Your task to perform on an android device: turn on location history Image 0: 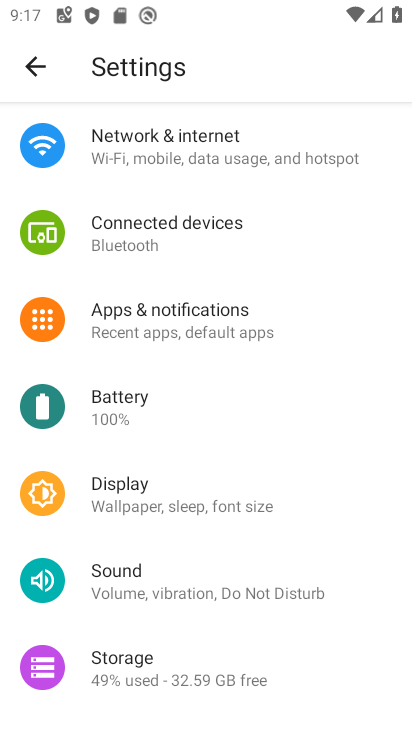
Step 0: press home button
Your task to perform on an android device: turn on location history Image 1: 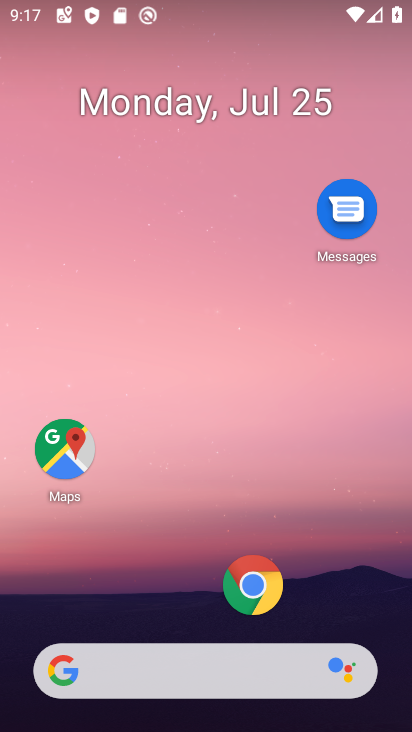
Step 1: click (68, 449)
Your task to perform on an android device: turn on location history Image 2: 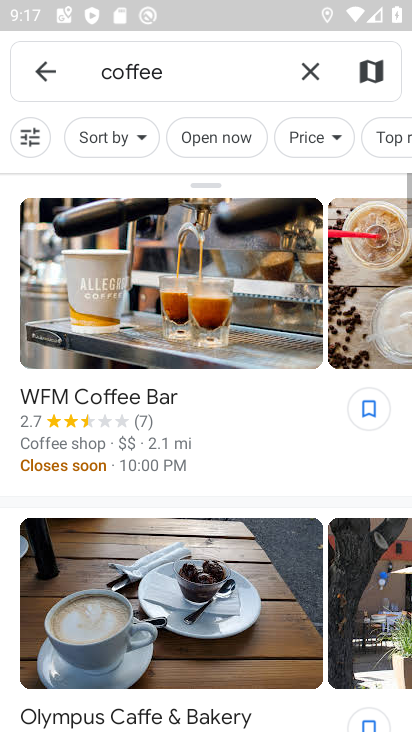
Step 2: click (55, 75)
Your task to perform on an android device: turn on location history Image 3: 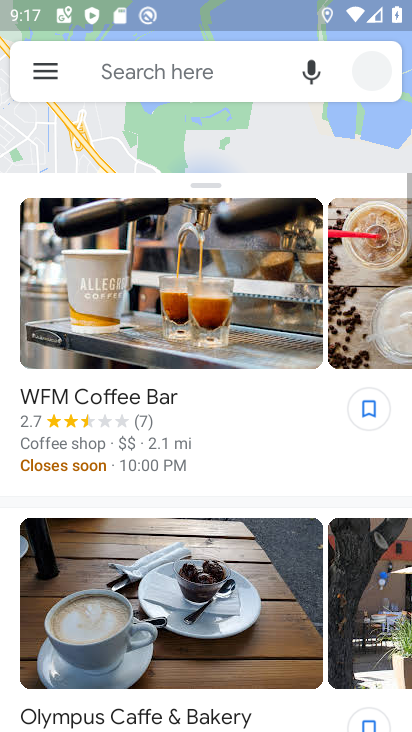
Step 3: click (48, 71)
Your task to perform on an android device: turn on location history Image 4: 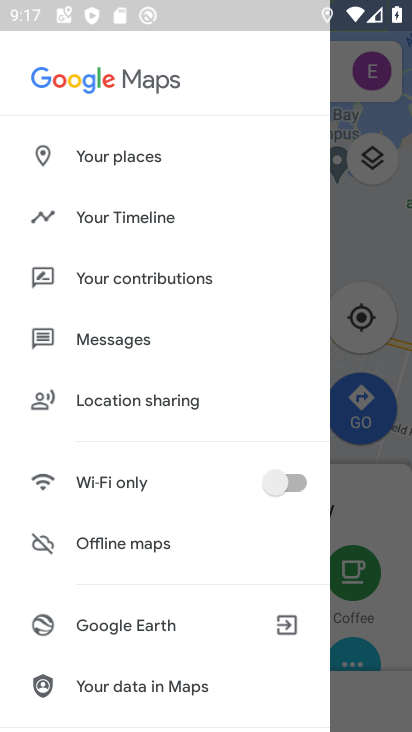
Step 4: click (118, 213)
Your task to perform on an android device: turn on location history Image 5: 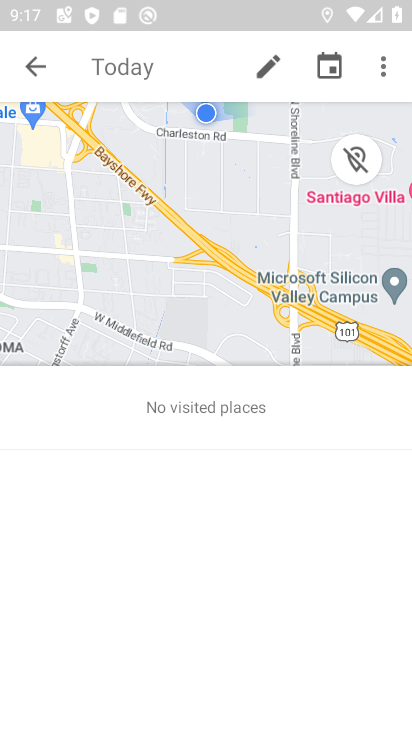
Step 5: click (384, 72)
Your task to perform on an android device: turn on location history Image 6: 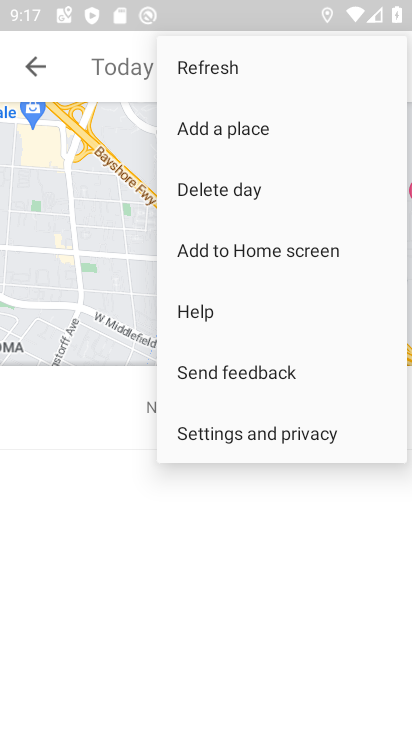
Step 6: click (233, 429)
Your task to perform on an android device: turn on location history Image 7: 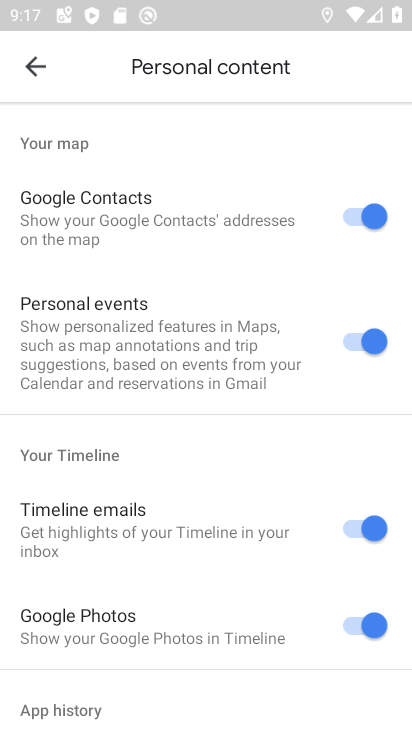
Step 7: drag from (147, 588) to (319, 96)
Your task to perform on an android device: turn on location history Image 8: 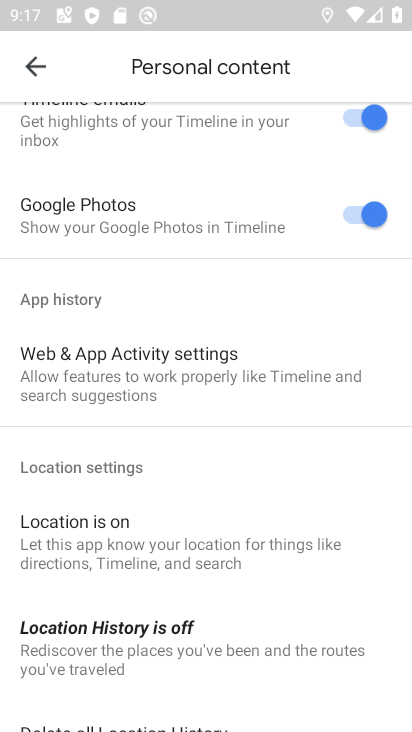
Step 8: click (120, 631)
Your task to perform on an android device: turn on location history Image 9: 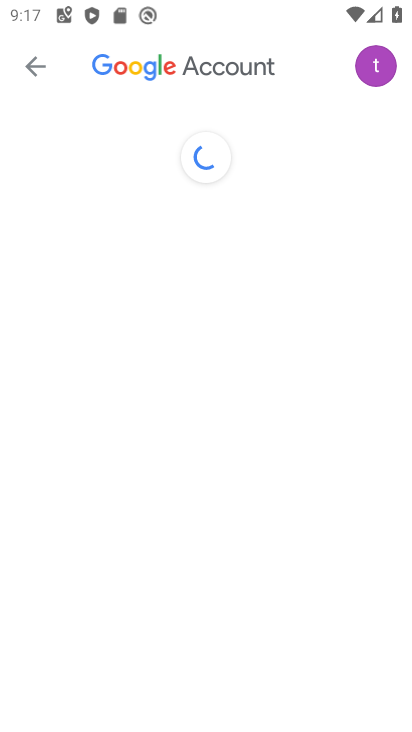
Step 9: drag from (293, 593) to (306, 119)
Your task to perform on an android device: turn on location history Image 10: 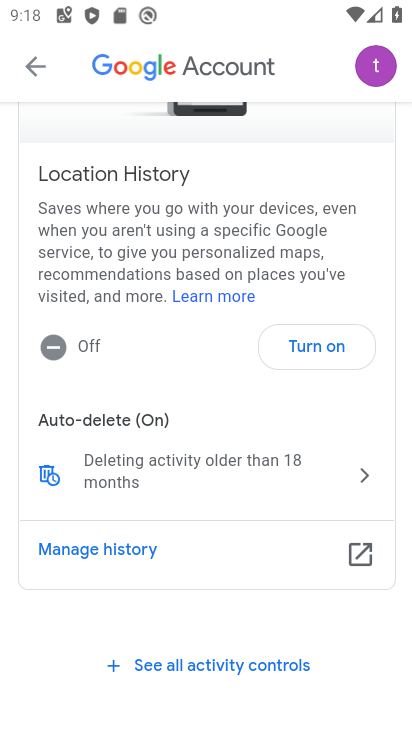
Step 10: click (324, 341)
Your task to perform on an android device: turn on location history Image 11: 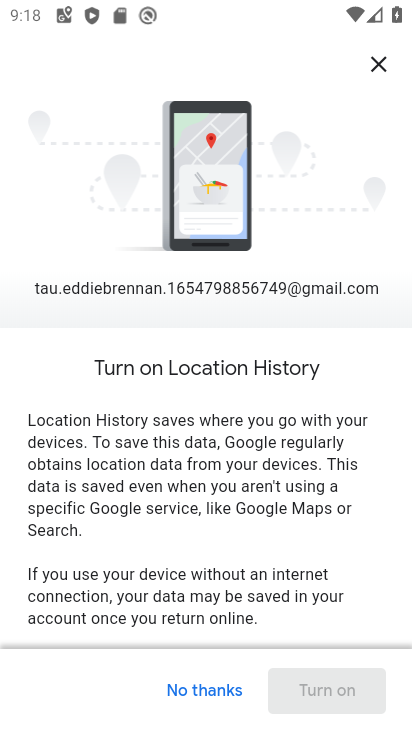
Step 11: drag from (229, 551) to (293, 68)
Your task to perform on an android device: turn on location history Image 12: 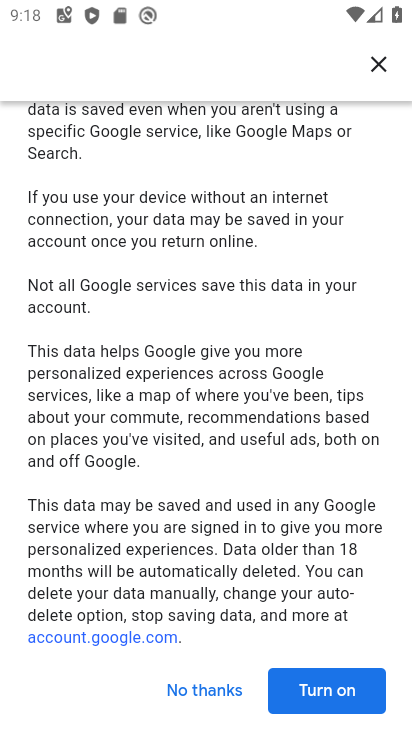
Step 12: click (331, 696)
Your task to perform on an android device: turn on location history Image 13: 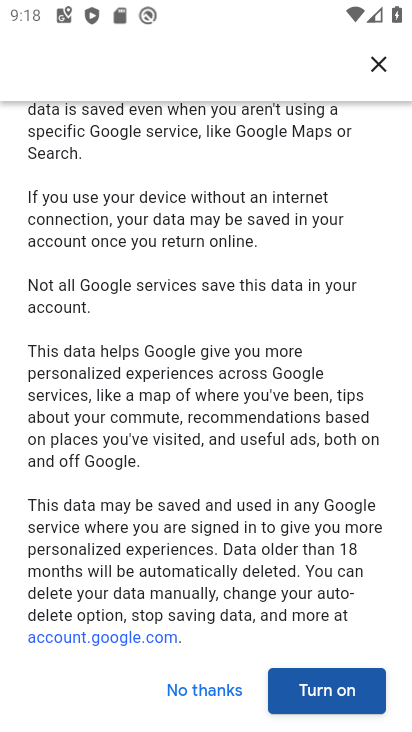
Step 13: click (340, 687)
Your task to perform on an android device: turn on location history Image 14: 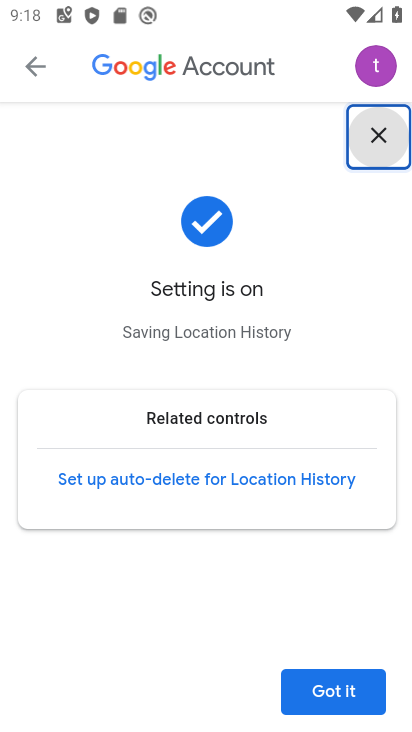
Step 14: click (324, 698)
Your task to perform on an android device: turn on location history Image 15: 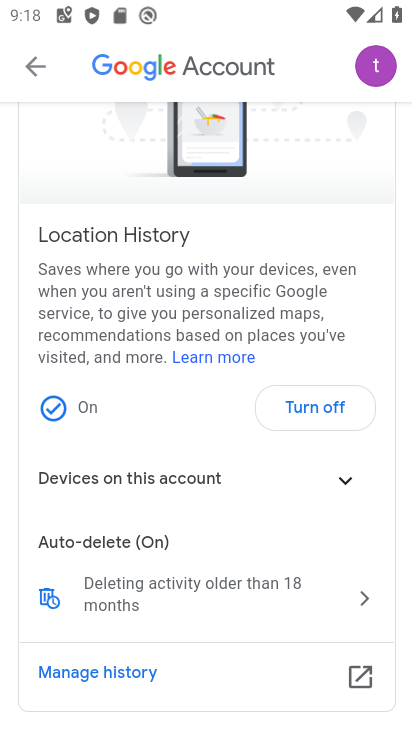
Step 15: task complete